Your task to perform on an android device: Open calendar and show me the fourth week of next month Image 0: 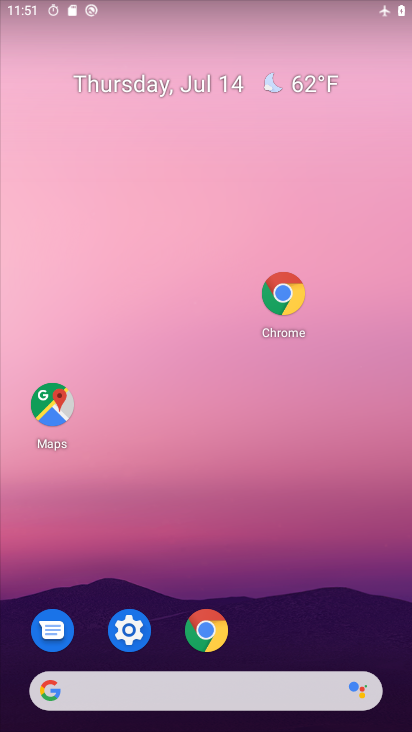
Step 0: drag from (236, 413) to (236, 230)
Your task to perform on an android device: Open calendar and show me the fourth week of next month Image 1: 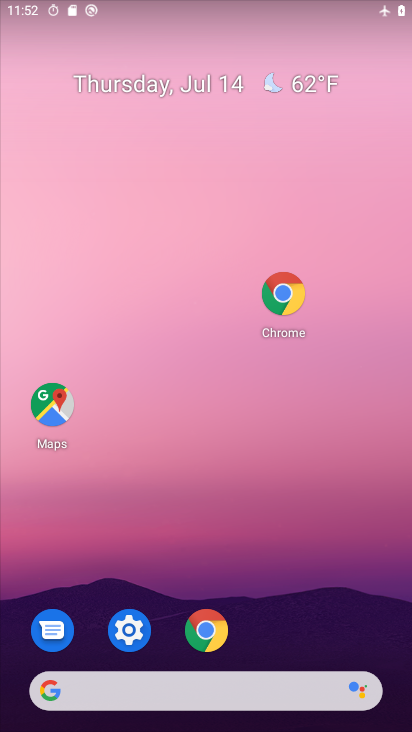
Step 1: drag from (289, 636) to (223, 164)
Your task to perform on an android device: Open calendar and show me the fourth week of next month Image 2: 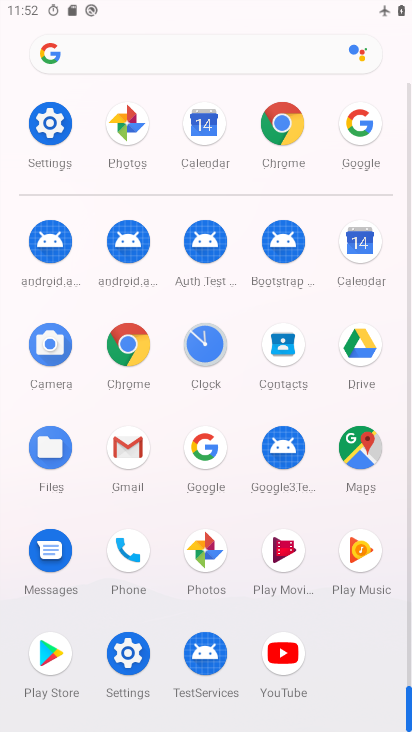
Step 2: drag from (259, 406) to (246, 24)
Your task to perform on an android device: Open calendar and show me the fourth week of next month Image 3: 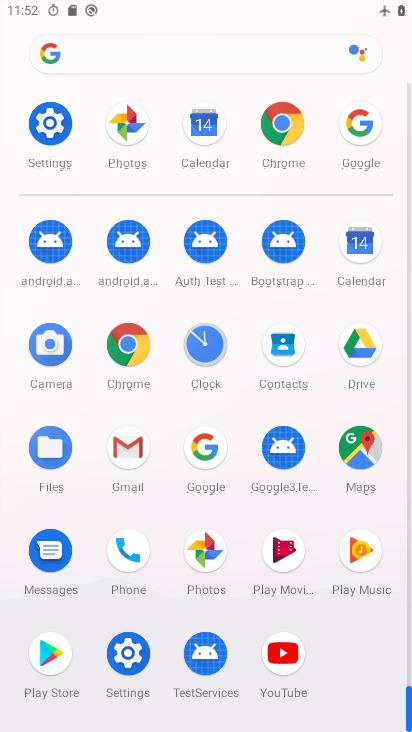
Step 3: click (351, 250)
Your task to perform on an android device: Open calendar and show me the fourth week of next month Image 4: 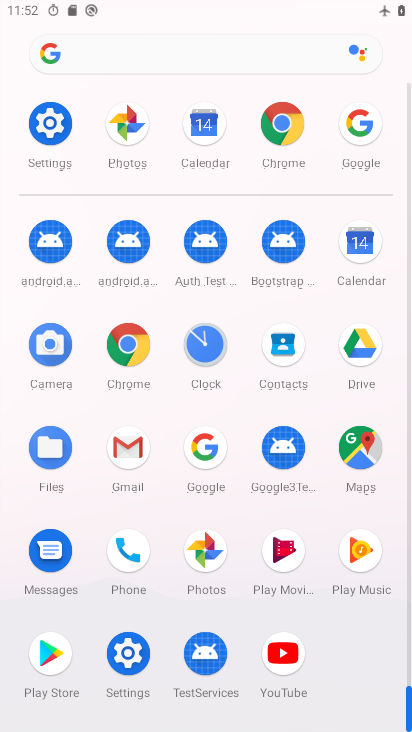
Step 4: click (356, 242)
Your task to perform on an android device: Open calendar and show me the fourth week of next month Image 5: 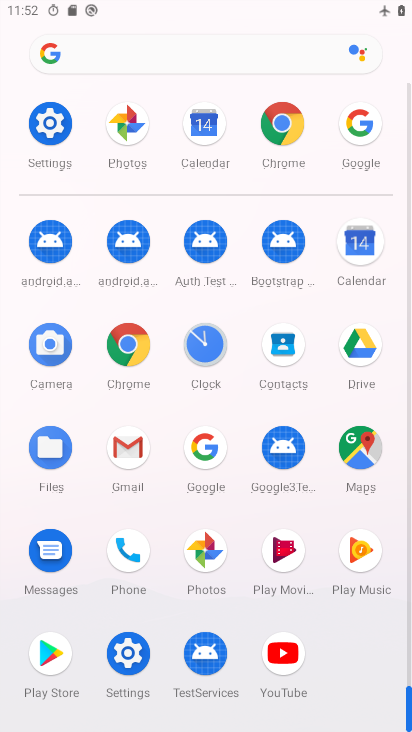
Step 5: click (360, 241)
Your task to perform on an android device: Open calendar and show me the fourth week of next month Image 6: 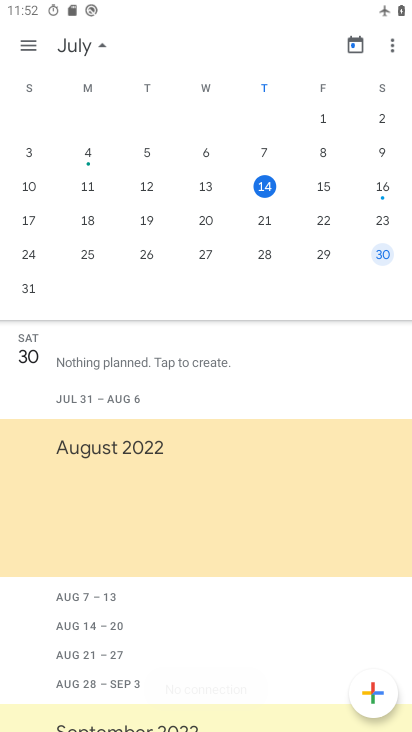
Step 6: drag from (65, 215) to (7, 179)
Your task to perform on an android device: Open calendar and show me the fourth week of next month Image 7: 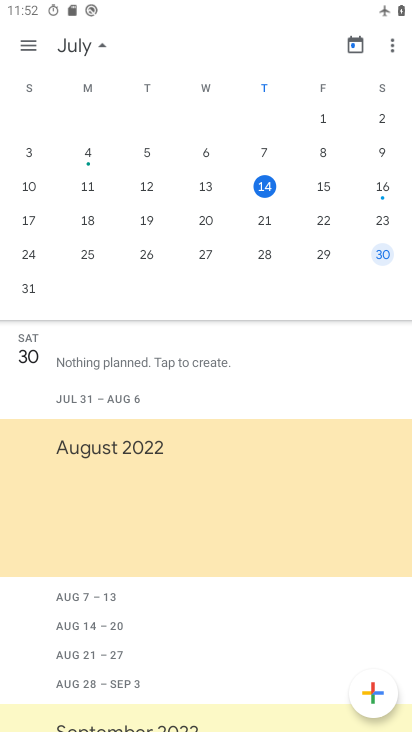
Step 7: drag from (259, 195) to (3, 194)
Your task to perform on an android device: Open calendar and show me the fourth week of next month Image 8: 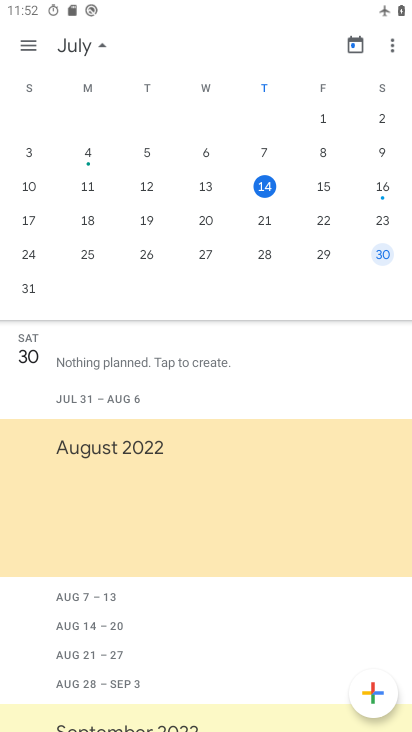
Step 8: drag from (311, 188) to (77, 185)
Your task to perform on an android device: Open calendar and show me the fourth week of next month Image 9: 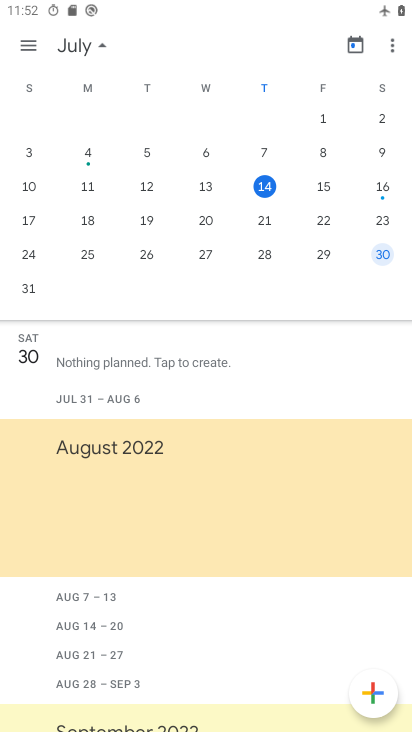
Step 9: click (38, 163)
Your task to perform on an android device: Open calendar and show me the fourth week of next month Image 10: 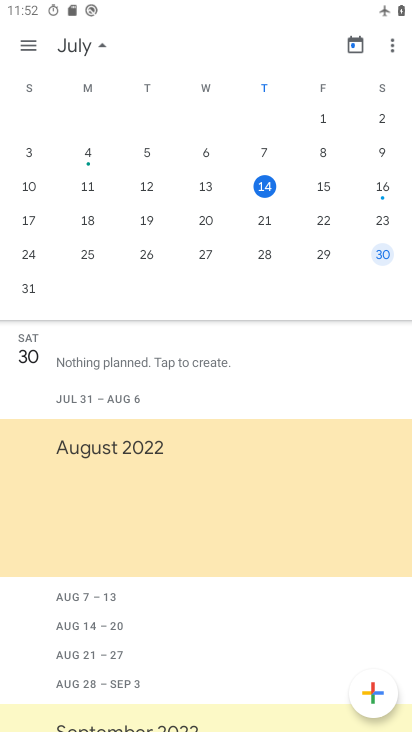
Step 10: drag from (248, 153) to (42, 243)
Your task to perform on an android device: Open calendar and show me the fourth week of next month Image 11: 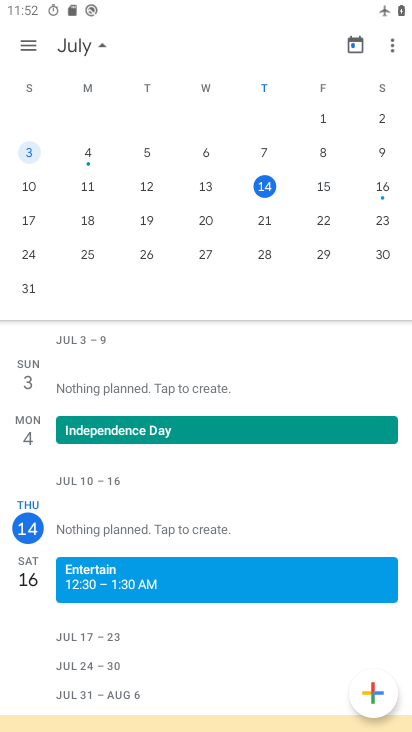
Step 11: drag from (260, 194) to (9, 199)
Your task to perform on an android device: Open calendar and show me the fourth week of next month Image 12: 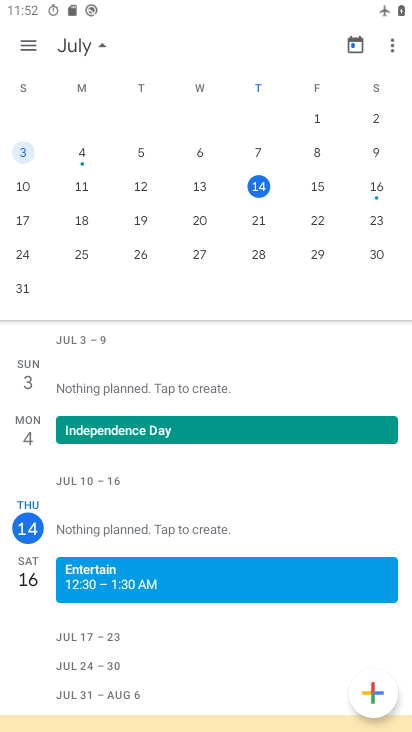
Step 12: drag from (49, 176) to (3, 219)
Your task to perform on an android device: Open calendar and show me the fourth week of next month Image 13: 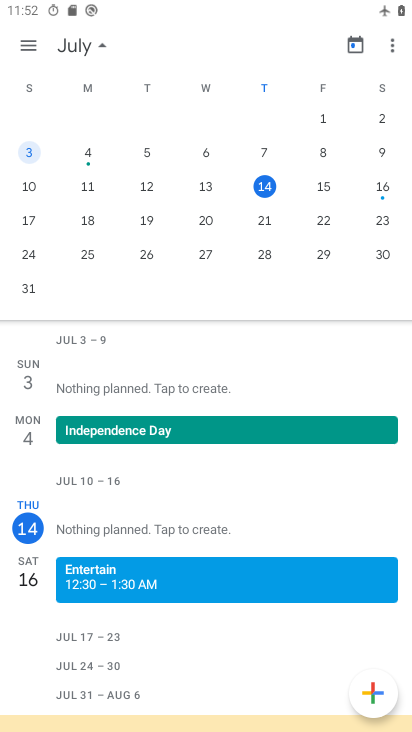
Step 13: drag from (332, 178) to (4, 216)
Your task to perform on an android device: Open calendar and show me the fourth week of next month Image 14: 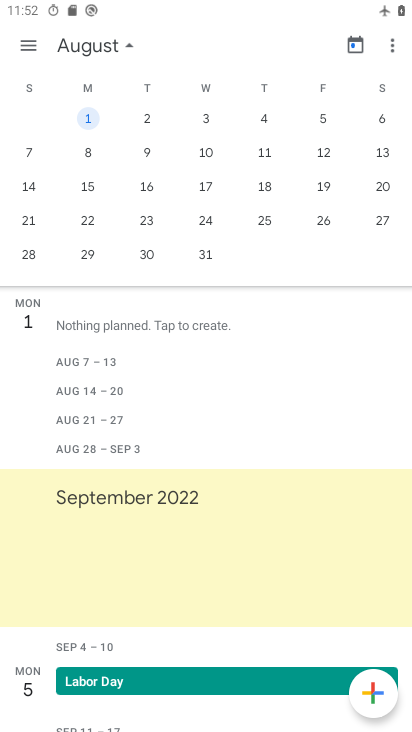
Step 14: click (79, 219)
Your task to perform on an android device: Open calendar and show me the fourth week of next month Image 15: 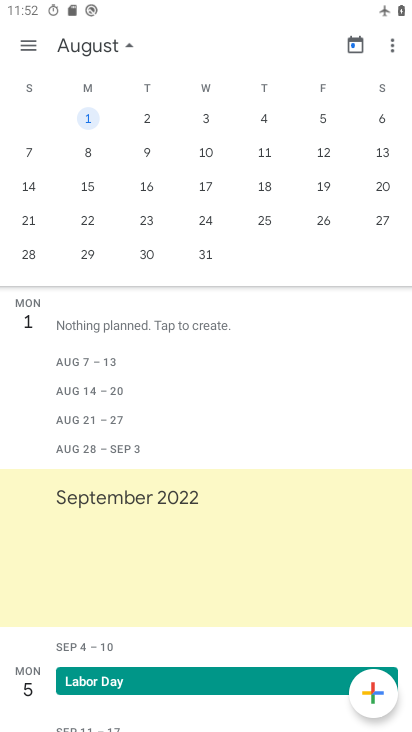
Step 15: click (90, 213)
Your task to perform on an android device: Open calendar and show me the fourth week of next month Image 16: 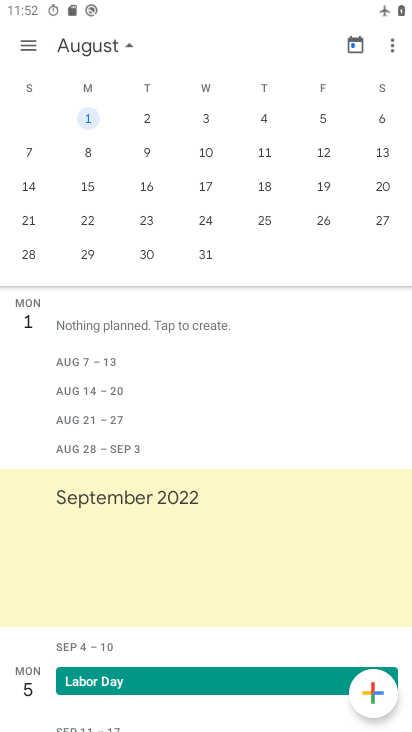
Step 16: click (92, 212)
Your task to perform on an android device: Open calendar and show me the fourth week of next month Image 17: 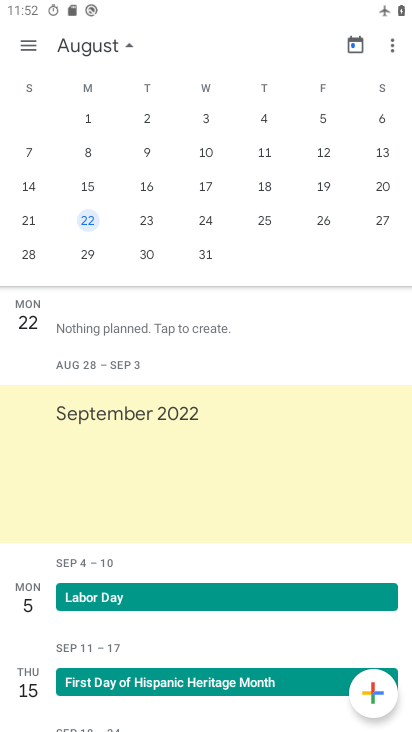
Step 17: click (92, 212)
Your task to perform on an android device: Open calendar and show me the fourth week of next month Image 18: 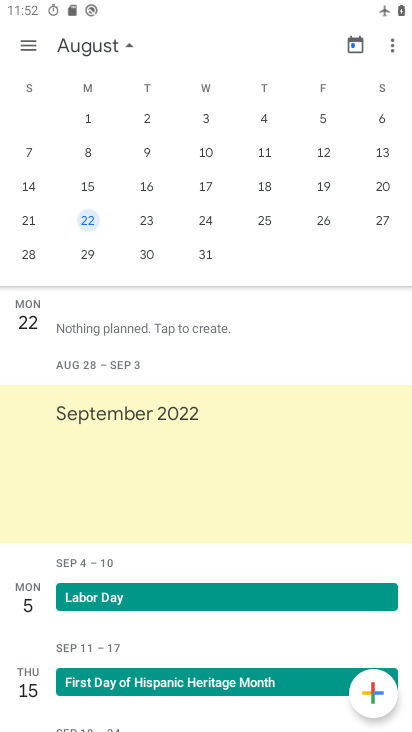
Step 18: click (92, 212)
Your task to perform on an android device: Open calendar and show me the fourth week of next month Image 19: 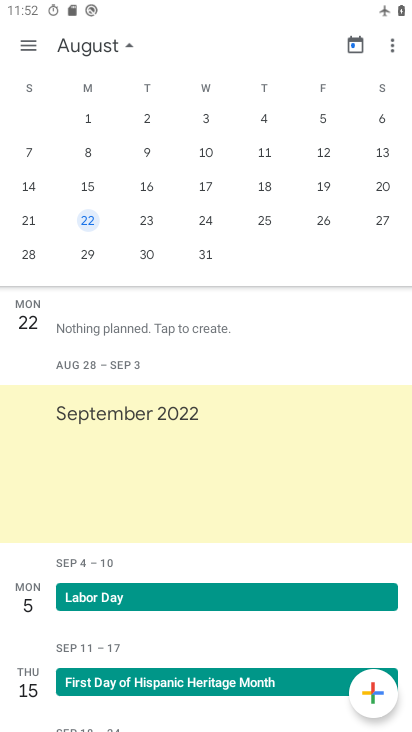
Step 19: task complete